Your task to perform on an android device: change notification settings in the gmail app Image 0: 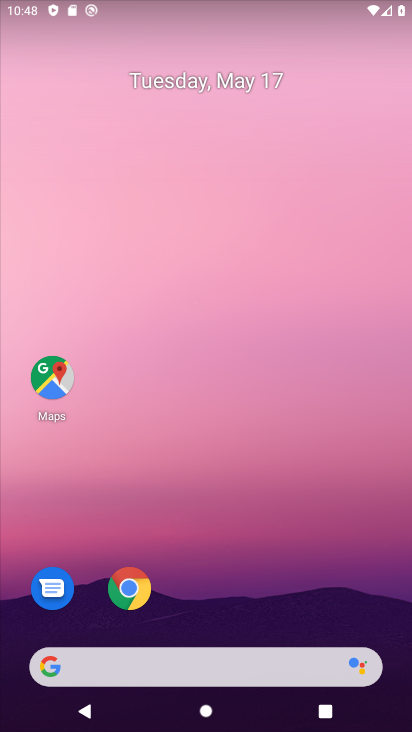
Step 0: drag from (328, 566) to (312, 81)
Your task to perform on an android device: change notification settings in the gmail app Image 1: 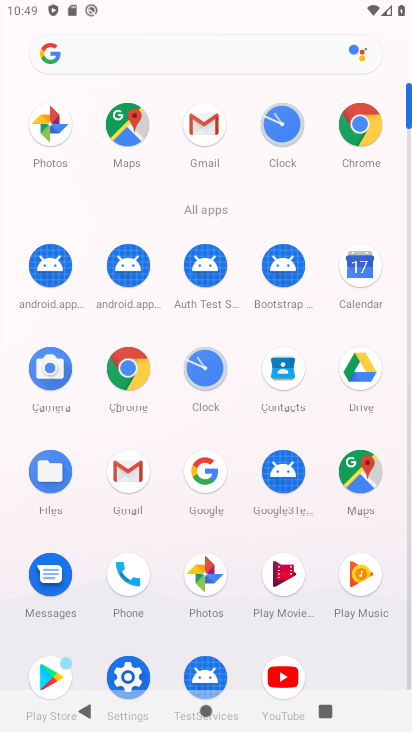
Step 1: click (126, 482)
Your task to perform on an android device: change notification settings in the gmail app Image 2: 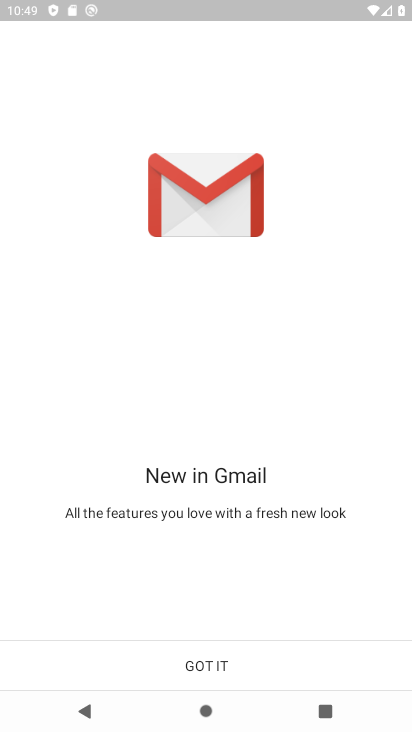
Step 2: click (203, 657)
Your task to perform on an android device: change notification settings in the gmail app Image 3: 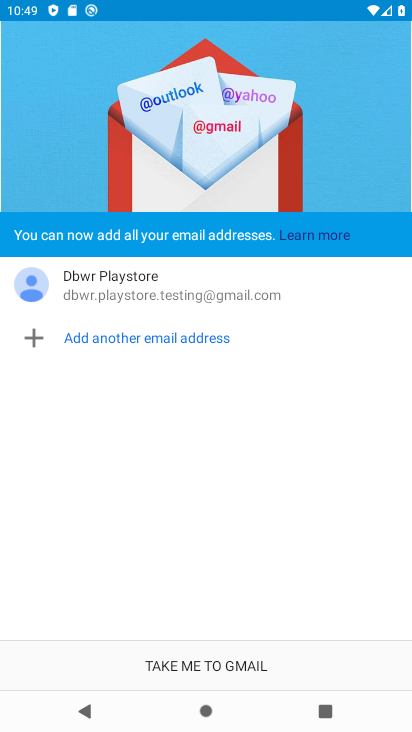
Step 3: click (209, 666)
Your task to perform on an android device: change notification settings in the gmail app Image 4: 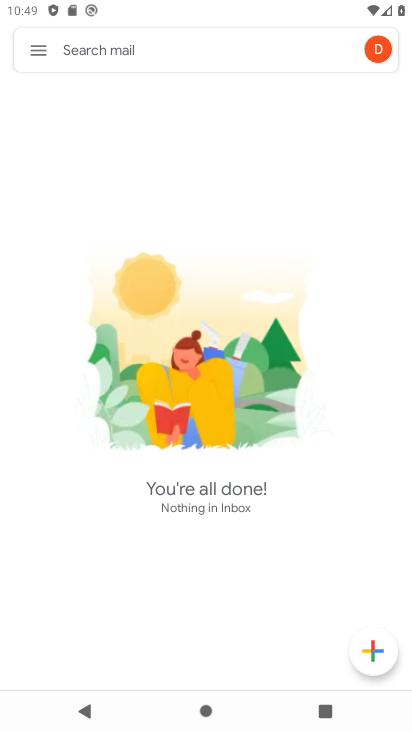
Step 4: click (31, 50)
Your task to perform on an android device: change notification settings in the gmail app Image 5: 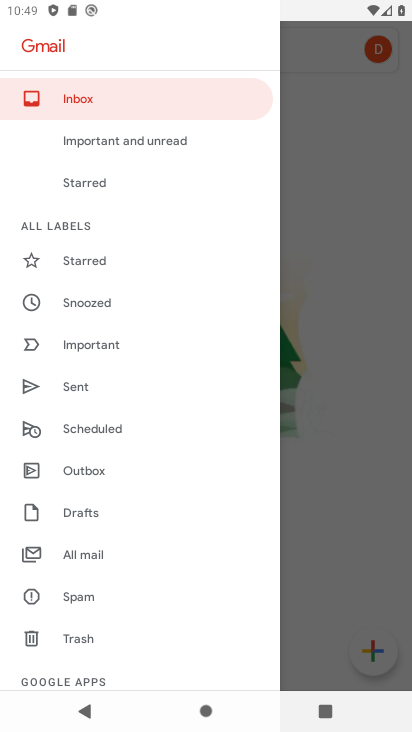
Step 5: drag from (129, 633) to (153, 249)
Your task to perform on an android device: change notification settings in the gmail app Image 6: 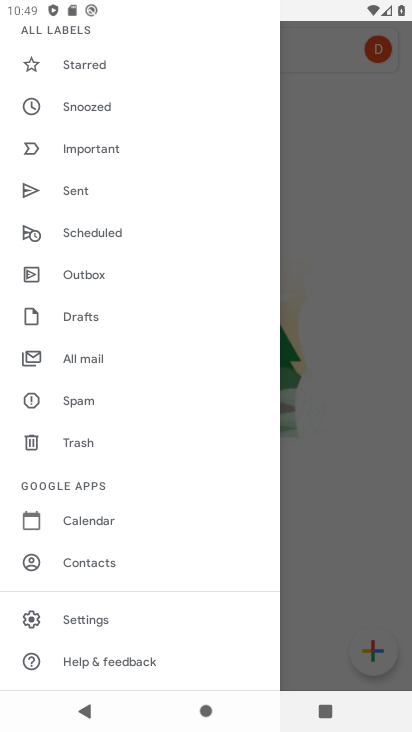
Step 6: click (87, 617)
Your task to perform on an android device: change notification settings in the gmail app Image 7: 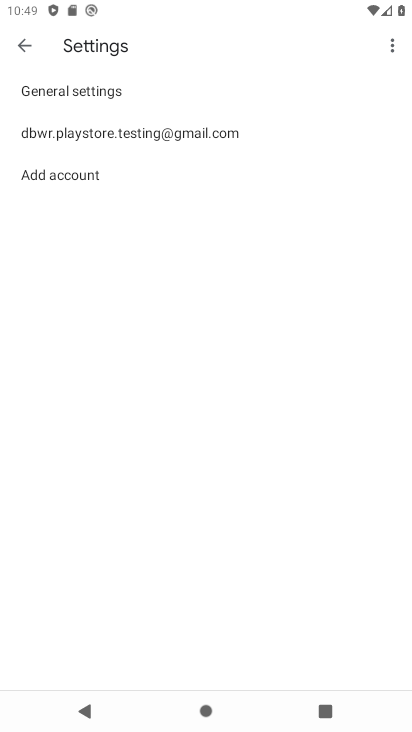
Step 7: click (123, 136)
Your task to perform on an android device: change notification settings in the gmail app Image 8: 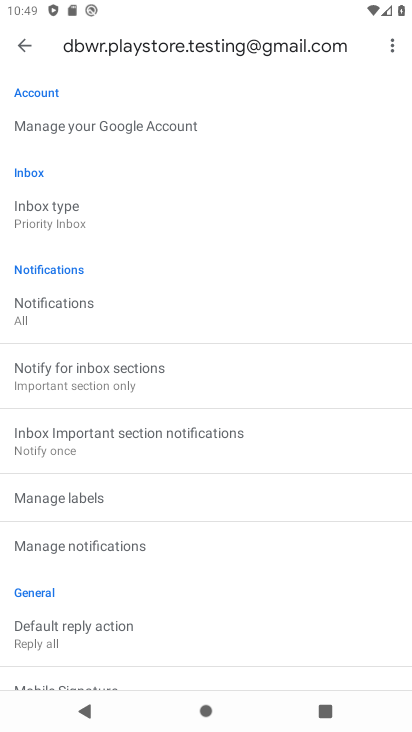
Step 8: click (102, 325)
Your task to perform on an android device: change notification settings in the gmail app Image 9: 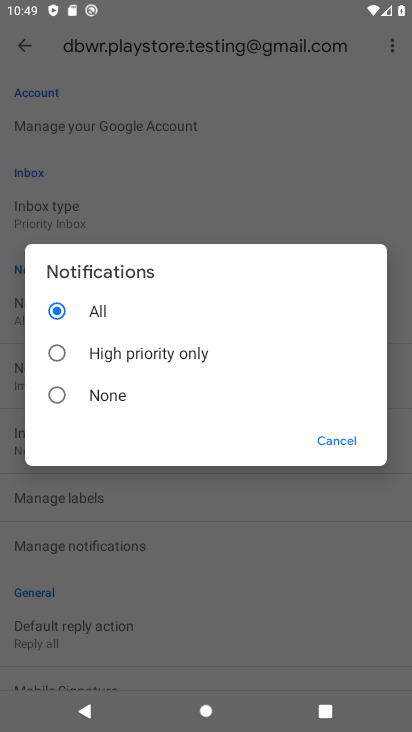
Step 9: click (116, 351)
Your task to perform on an android device: change notification settings in the gmail app Image 10: 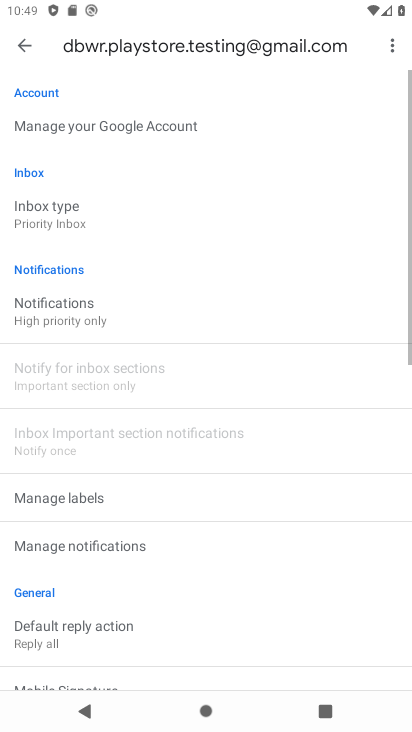
Step 10: task complete